Your task to perform on an android device: delete location history Image 0: 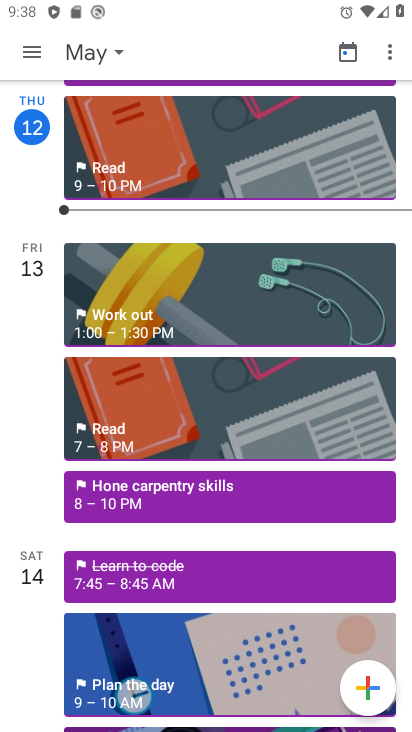
Step 0: press home button
Your task to perform on an android device: delete location history Image 1: 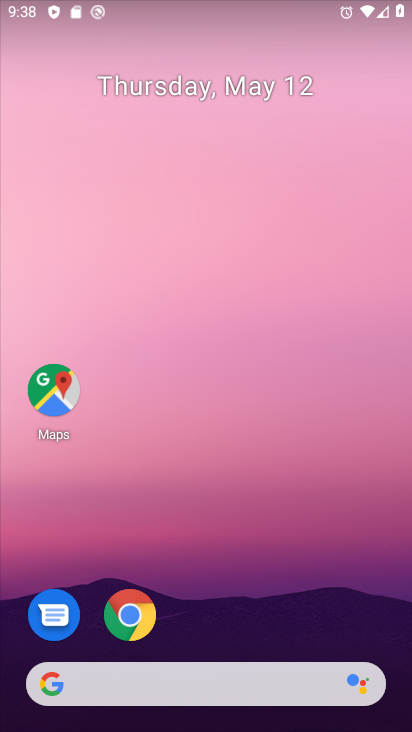
Step 1: drag from (286, 539) to (266, 137)
Your task to perform on an android device: delete location history Image 2: 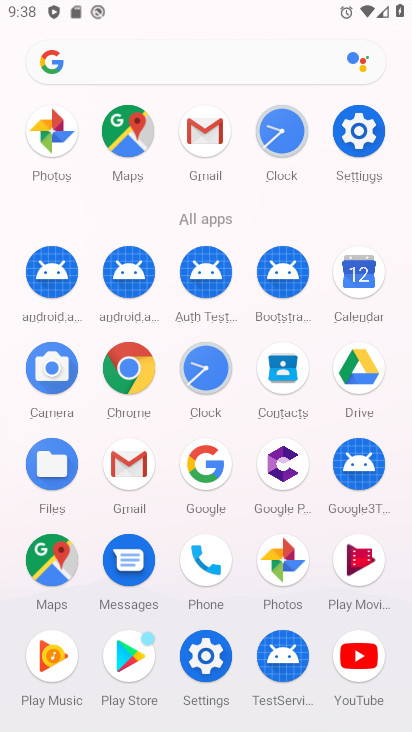
Step 2: click (52, 558)
Your task to perform on an android device: delete location history Image 3: 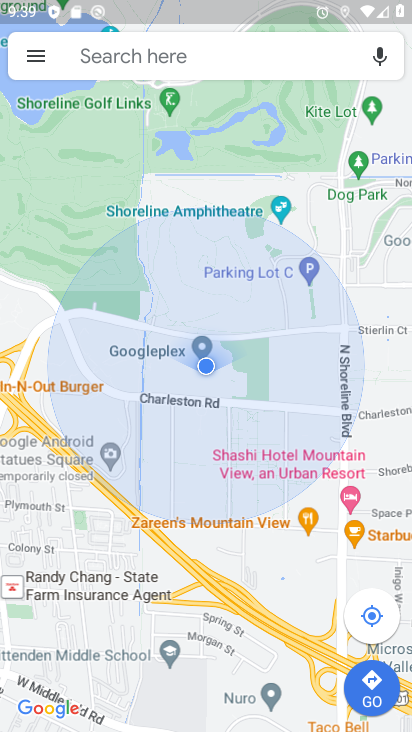
Step 3: click (39, 51)
Your task to perform on an android device: delete location history Image 4: 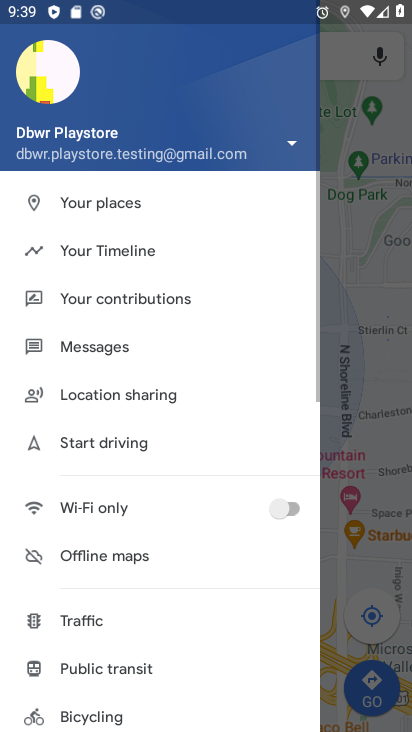
Step 4: drag from (177, 530) to (207, 163)
Your task to perform on an android device: delete location history Image 5: 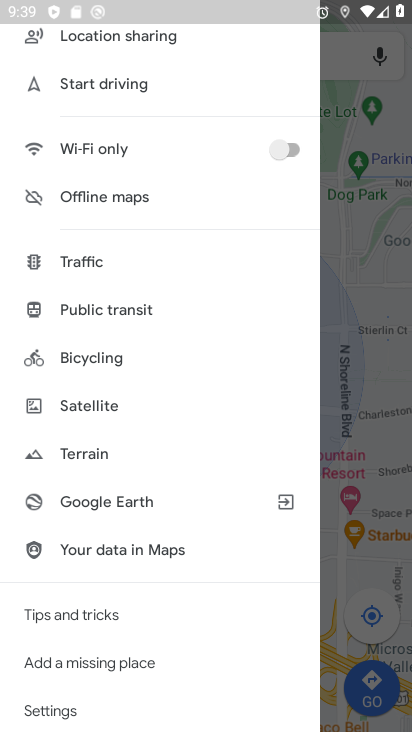
Step 5: drag from (184, 663) to (221, 133)
Your task to perform on an android device: delete location history Image 6: 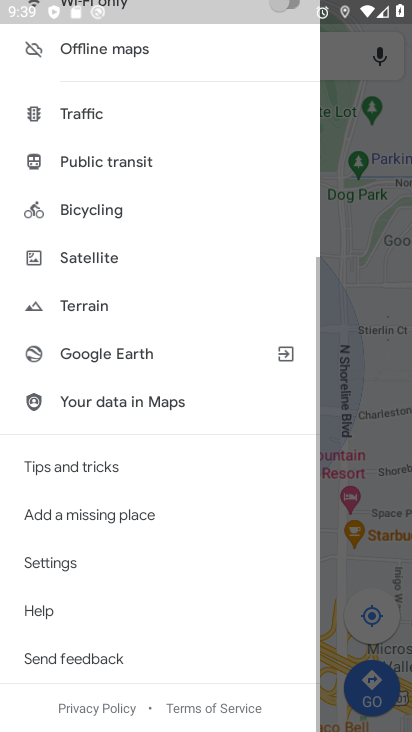
Step 6: click (92, 563)
Your task to perform on an android device: delete location history Image 7: 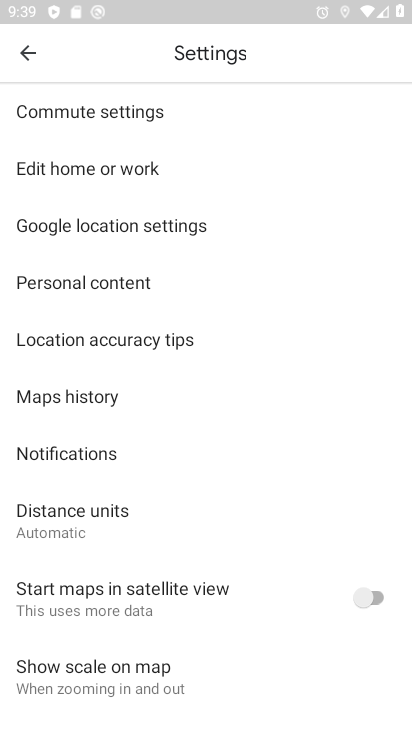
Step 7: drag from (212, 540) to (303, 257)
Your task to perform on an android device: delete location history Image 8: 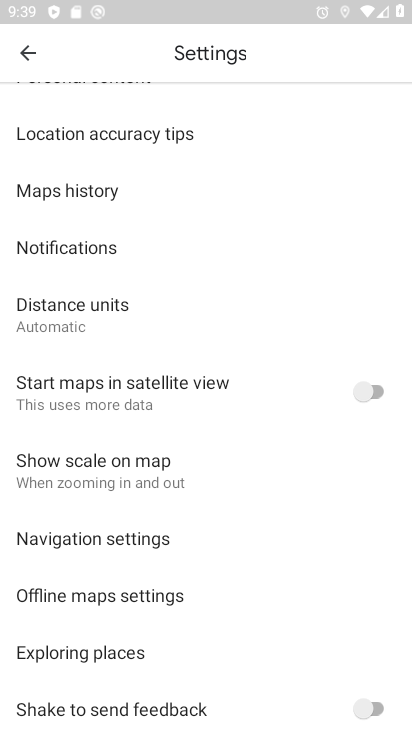
Step 8: click (91, 197)
Your task to perform on an android device: delete location history Image 9: 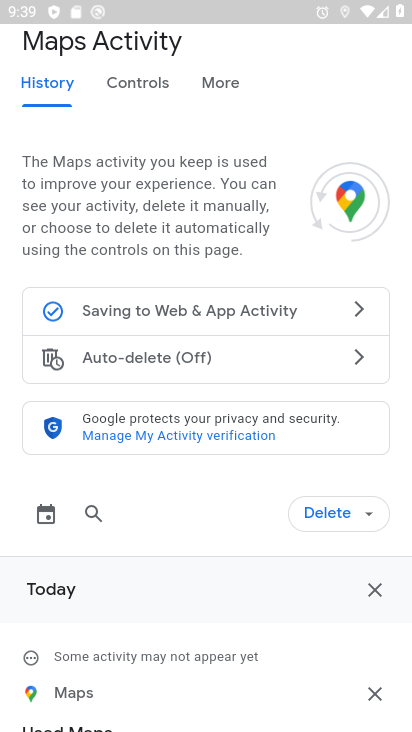
Step 9: click (324, 506)
Your task to perform on an android device: delete location history Image 10: 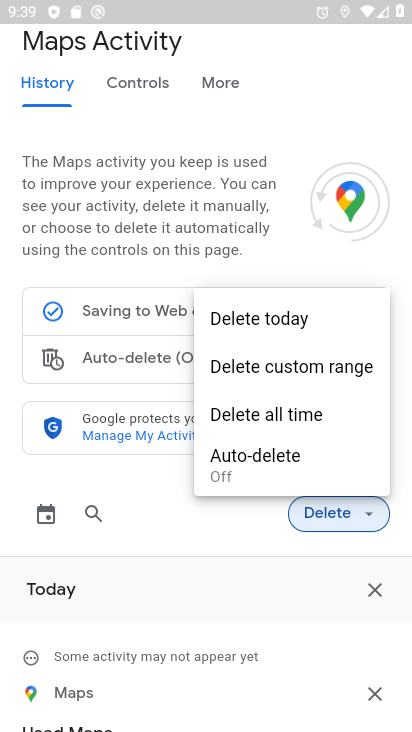
Step 10: click (267, 405)
Your task to perform on an android device: delete location history Image 11: 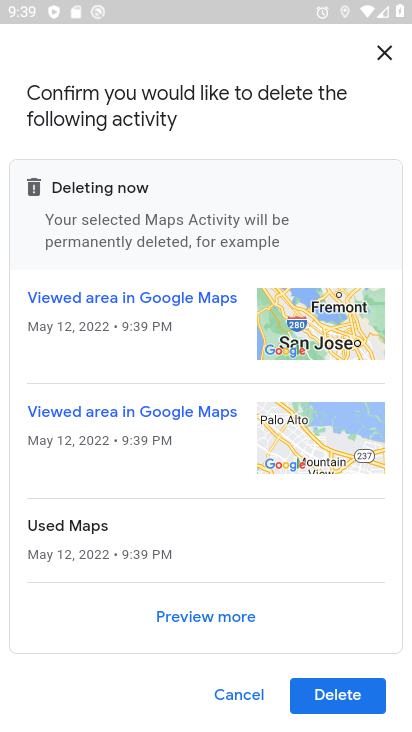
Step 11: click (341, 683)
Your task to perform on an android device: delete location history Image 12: 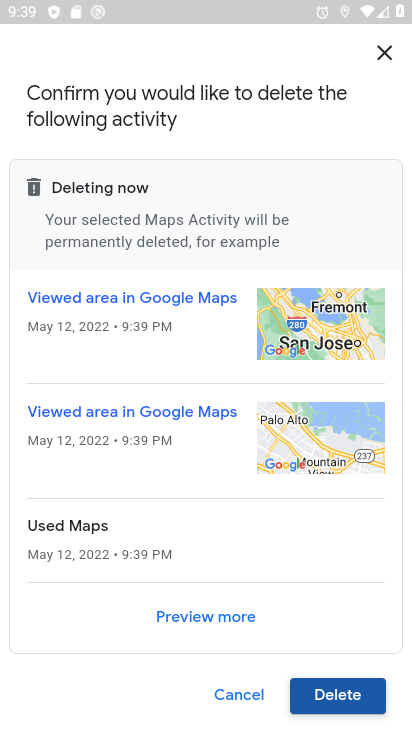
Step 12: click (331, 697)
Your task to perform on an android device: delete location history Image 13: 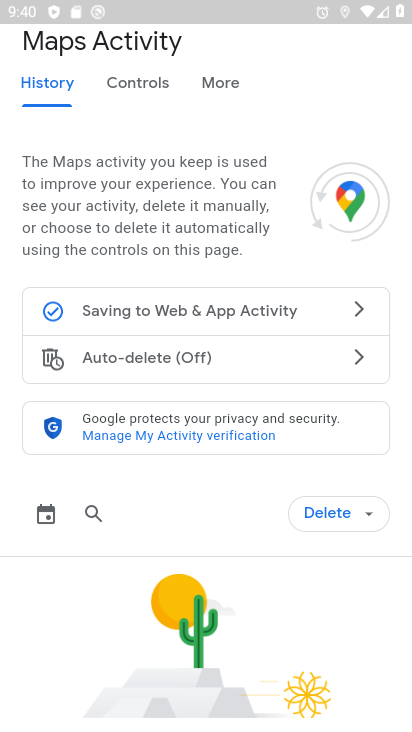
Step 13: click (329, 515)
Your task to perform on an android device: delete location history Image 14: 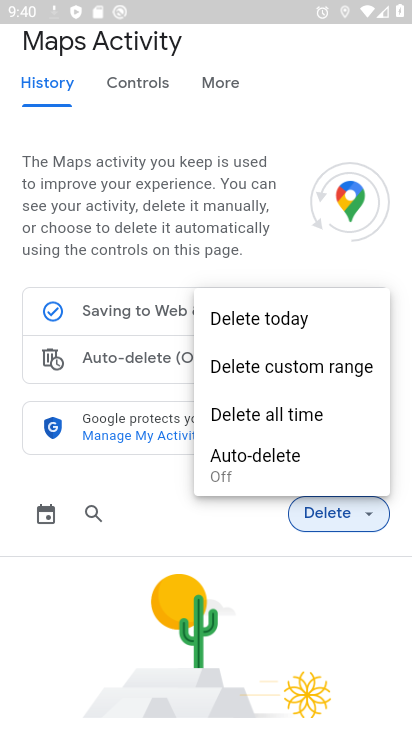
Step 14: click (297, 419)
Your task to perform on an android device: delete location history Image 15: 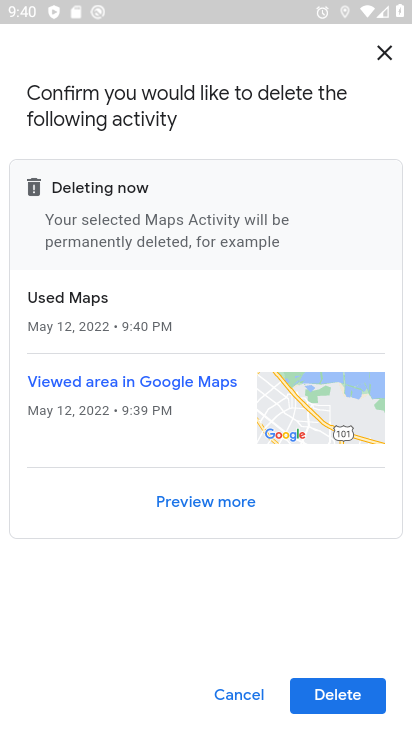
Step 15: click (319, 685)
Your task to perform on an android device: delete location history Image 16: 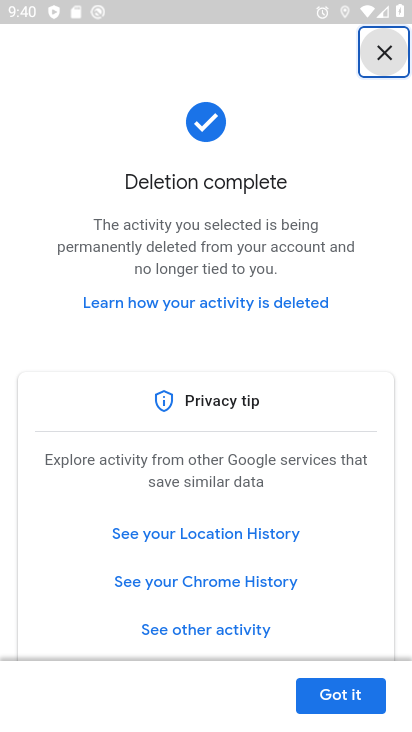
Step 16: task complete